Your task to perform on an android device: move an email to a new category in the gmail app Image 0: 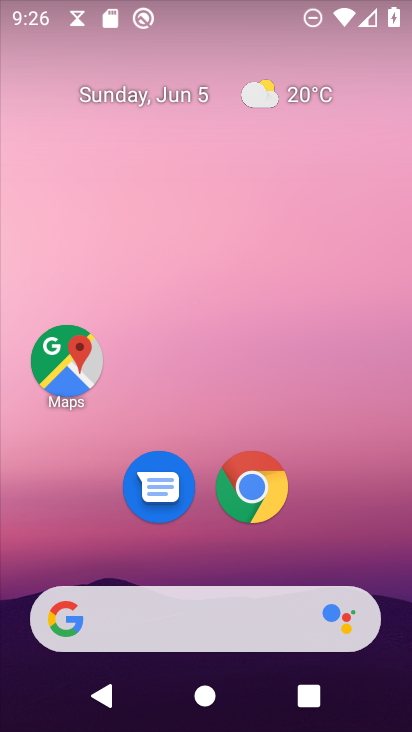
Step 0: drag from (229, 511) to (219, 306)
Your task to perform on an android device: move an email to a new category in the gmail app Image 1: 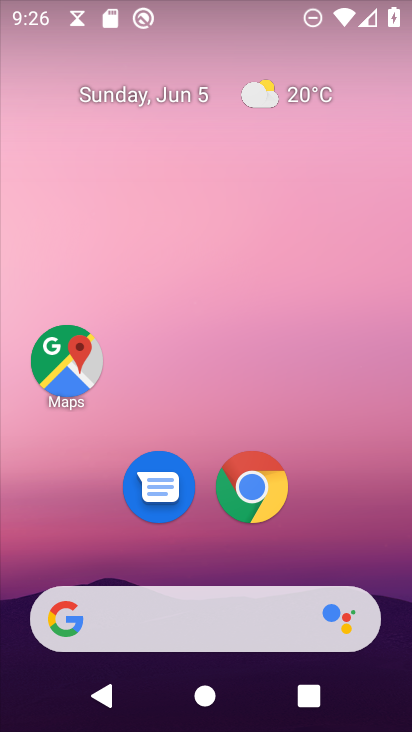
Step 1: drag from (172, 570) to (206, 172)
Your task to perform on an android device: move an email to a new category in the gmail app Image 2: 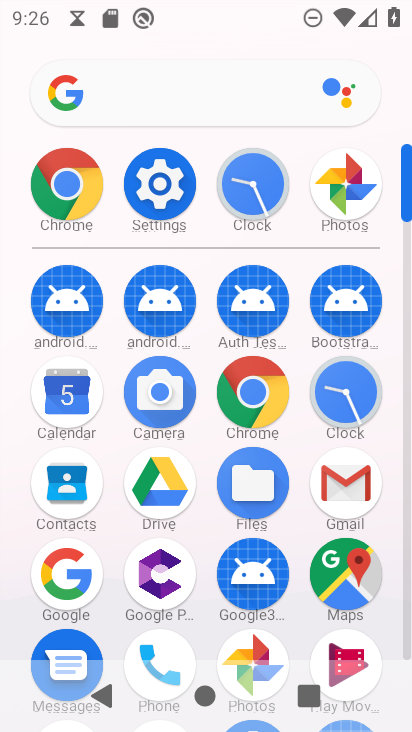
Step 2: click (331, 473)
Your task to perform on an android device: move an email to a new category in the gmail app Image 3: 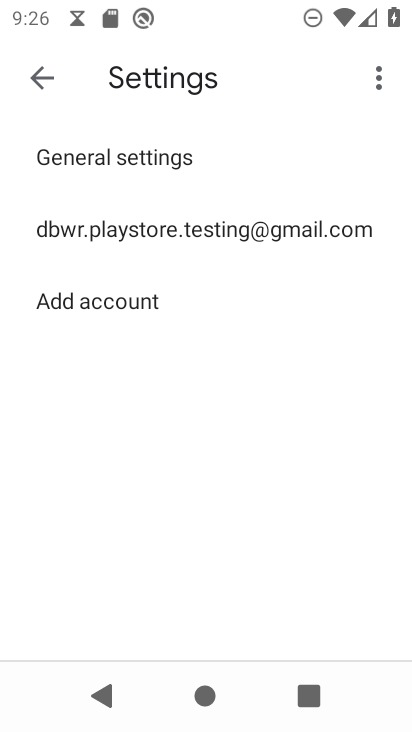
Step 3: click (157, 213)
Your task to perform on an android device: move an email to a new category in the gmail app Image 4: 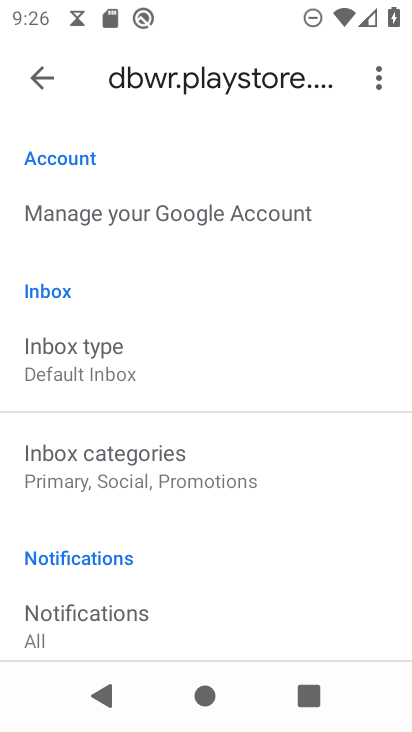
Step 4: task complete